Your task to perform on an android device: Clear all items from cart on target. Add beats solo 3 to the cart on target Image 0: 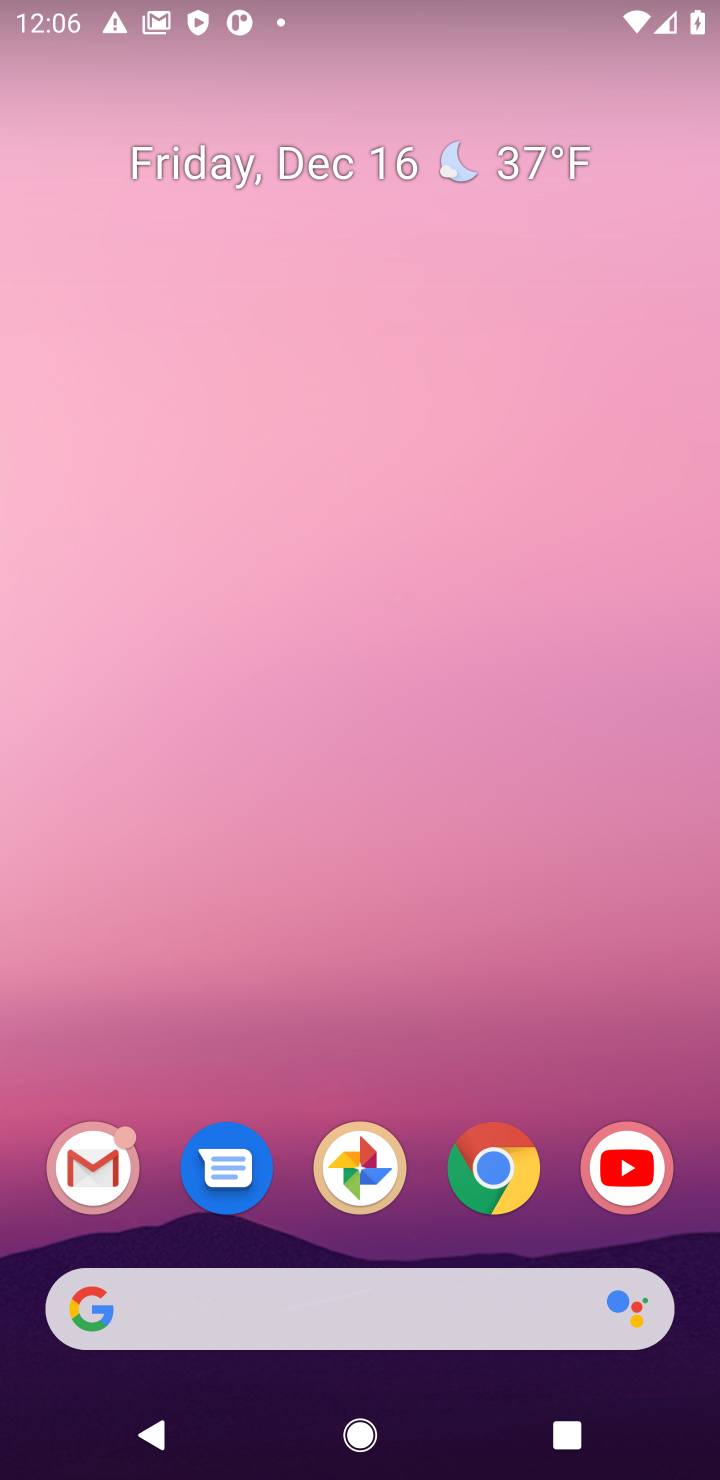
Step 0: task complete